Your task to perform on an android device: turn on showing notifications on the lock screen Image 0: 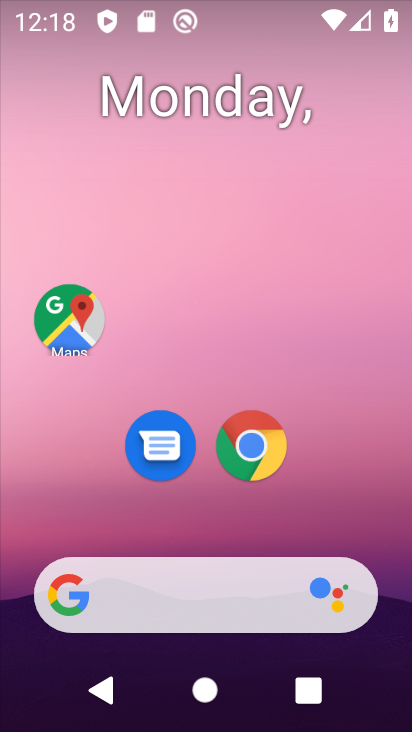
Step 0: drag from (299, 530) to (170, 5)
Your task to perform on an android device: turn on showing notifications on the lock screen Image 1: 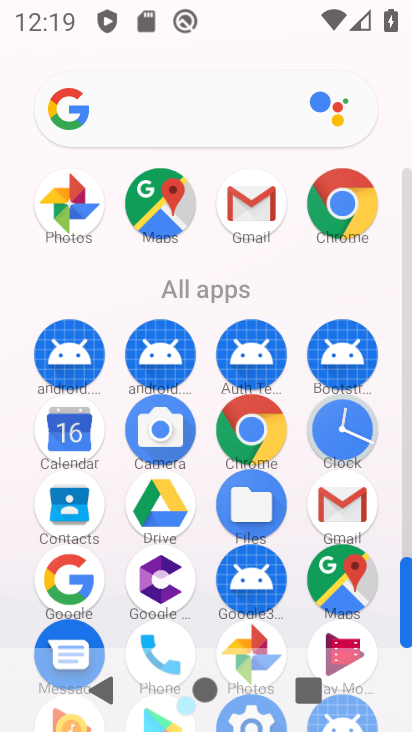
Step 1: drag from (323, 514) to (268, 195)
Your task to perform on an android device: turn on showing notifications on the lock screen Image 2: 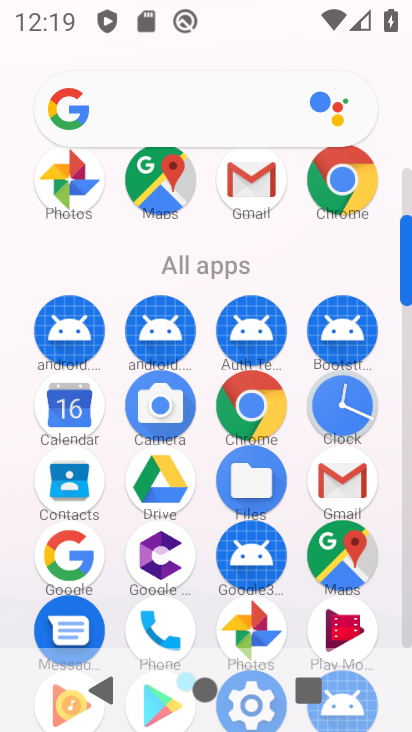
Step 2: drag from (288, 482) to (252, 247)
Your task to perform on an android device: turn on showing notifications on the lock screen Image 3: 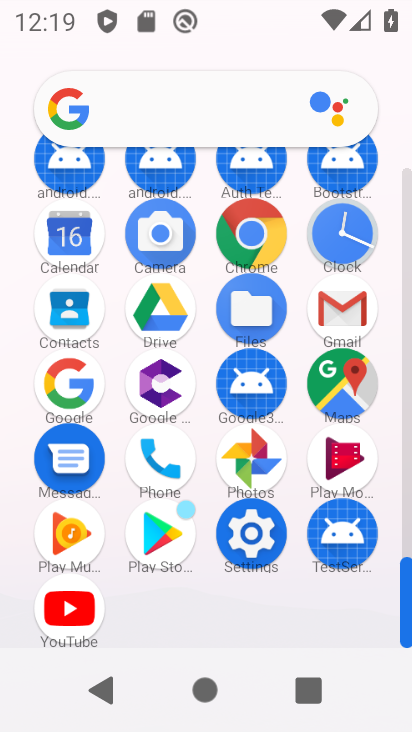
Step 3: click (245, 520)
Your task to perform on an android device: turn on showing notifications on the lock screen Image 4: 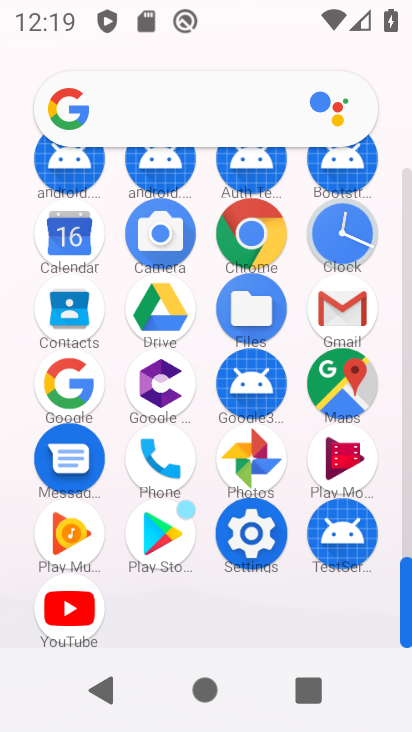
Step 4: click (248, 519)
Your task to perform on an android device: turn on showing notifications on the lock screen Image 5: 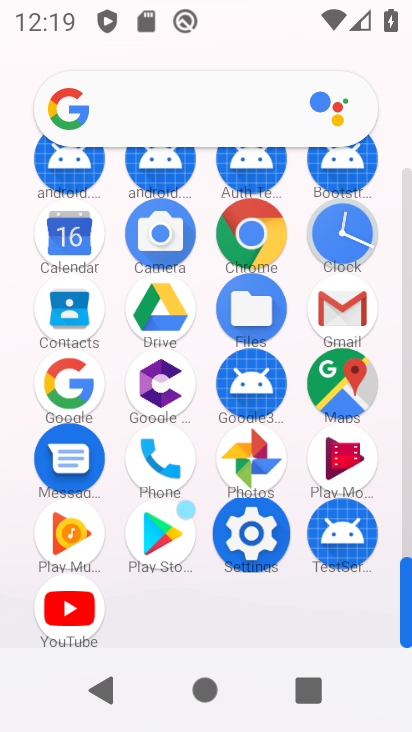
Step 5: click (248, 519)
Your task to perform on an android device: turn on showing notifications on the lock screen Image 6: 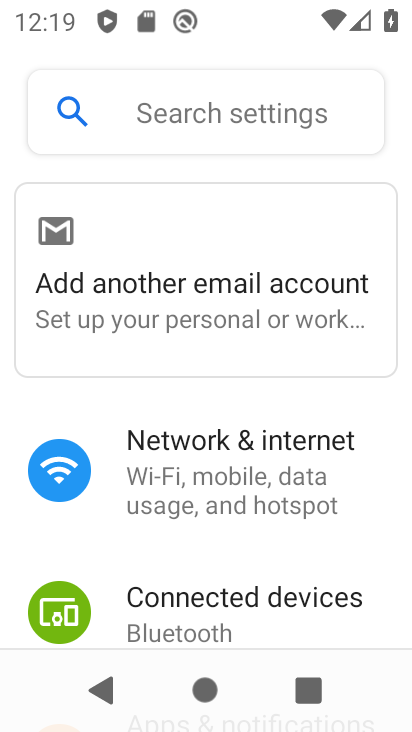
Step 6: drag from (169, 507) to (147, 239)
Your task to perform on an android device: turn on showing notifications on the lock screen Image 7: 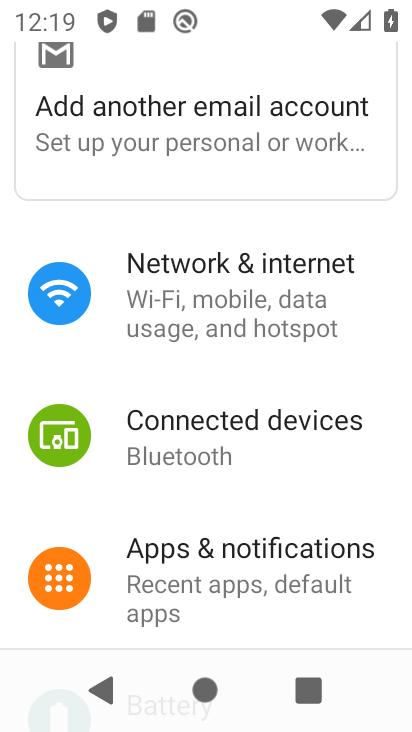
Step 7: drag from (198, 549) to (155, 291)
Your task to perform on an android device: turn on showing notifications on the lock screen Image 8: 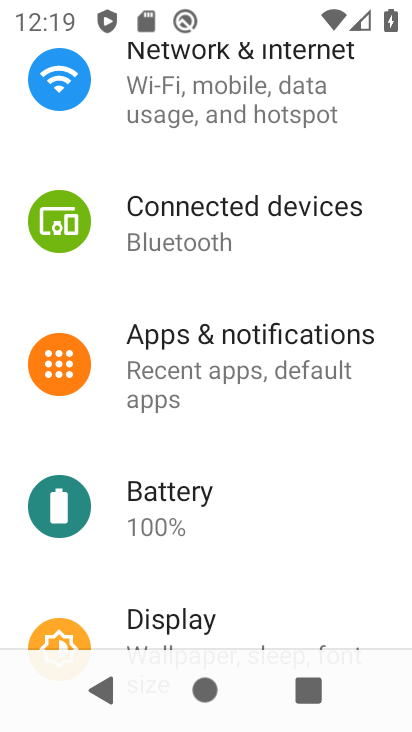
Step 8: drag from (209, 480) to (186, 204)
Your task to perform on an android device: turn on showing notifications on the lock screen Image 9: 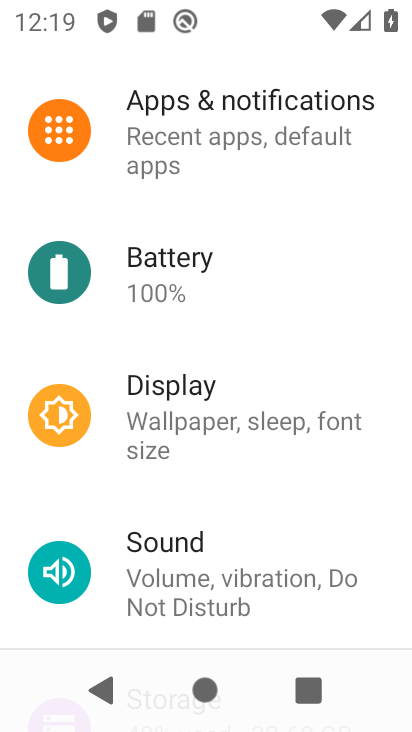
Step 9: drag from (259, 460) to (281, 169)
Your task to perform on an android device: turn on showing notifications on the lock screen Image 10: 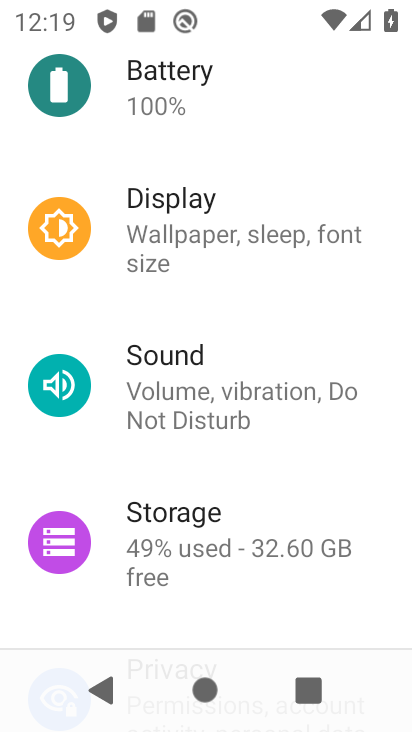
Step 10: drag from (291, 470) to (356, 242)
Your task to perform on an android device: turn on showing notifications on the lock screen Image 11: 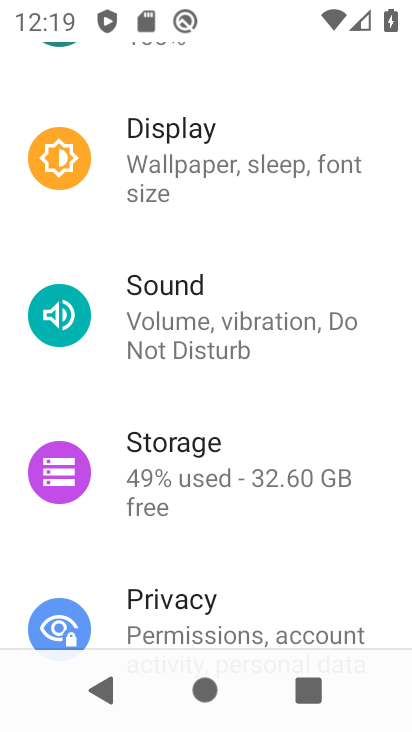
Step 11: drag from (313, 532) to (299, 210)
Your task to perform on an android device: turn on showing notifications on the lock screen Image 12: 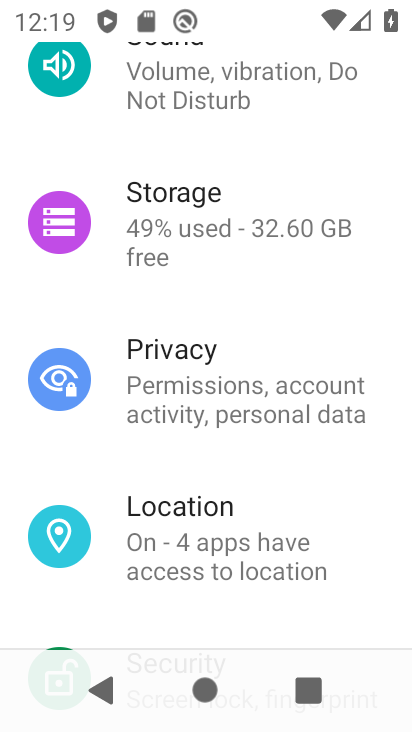
Step 12: drag from (249, 354) to (321, 166)
Your task to perform on an android device: turn on showing notifications on the lock screen Image 13: 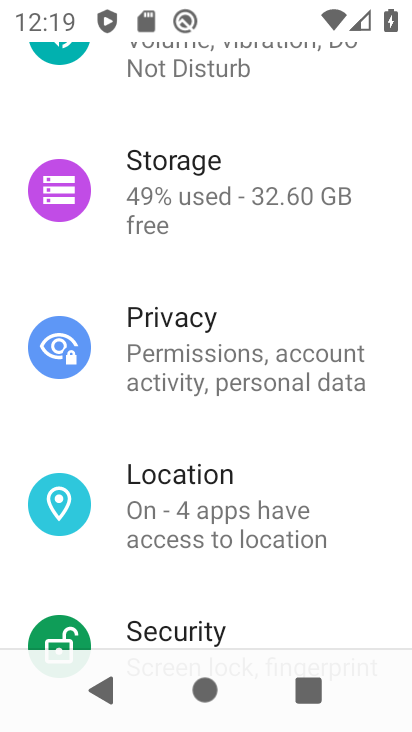
Step 13: click (340, 429)
Your task to perform on an android device: turn on showing notifications on the lock screen Image 14: 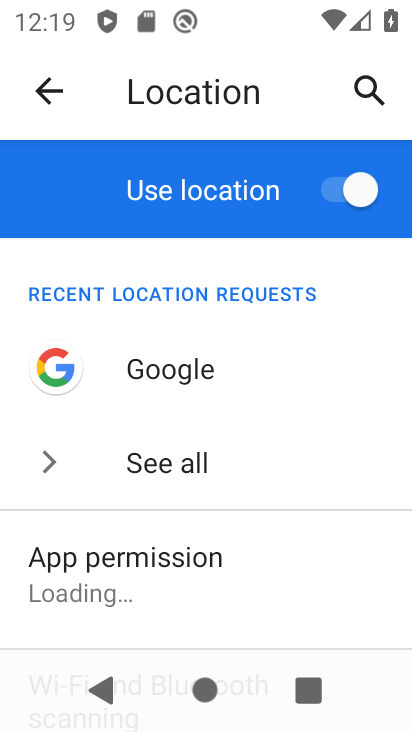
Step 14: click (34, 95)
Your task to perform on an android device: turn on showing notifications on the lock screen Image 15: 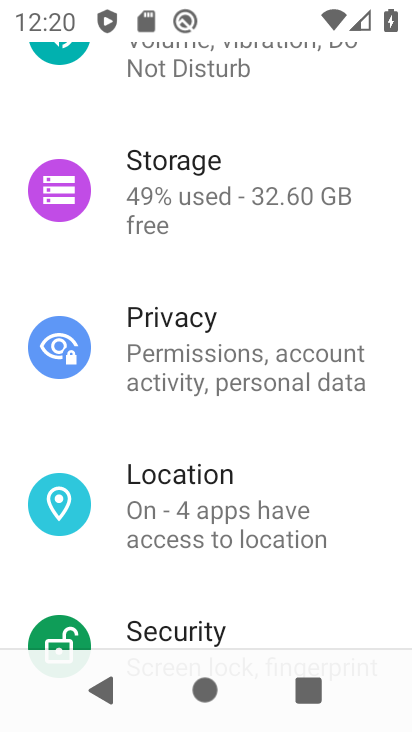
Step 15: drag from (212, 433) to (187, 170)
Your task to perform on an android device: turn on showing notifications on the lock screen Image 16: 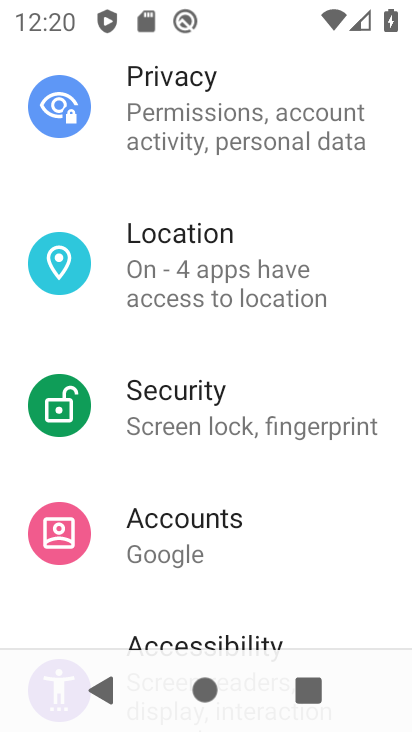
Step 16: drag from (232, 480) to (251, 229)
Your task to perform on an android device: turn on showing notifications on the lock screen Image 17: 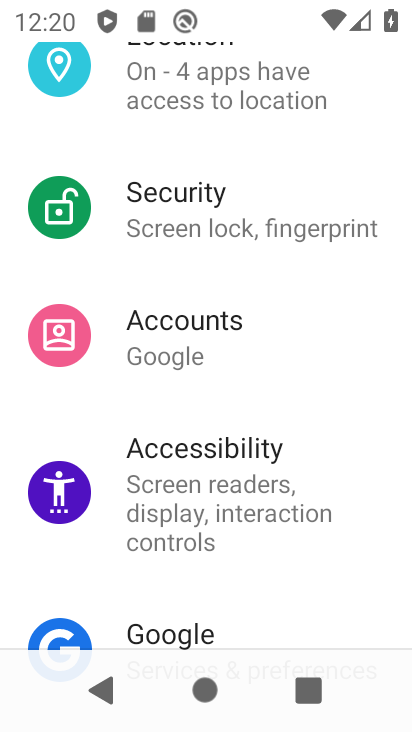
Step 17: drag from (186, 499) to (207, 133)
Your task to perform on an android device: turn on showing notifications on the lock screen Image 18: 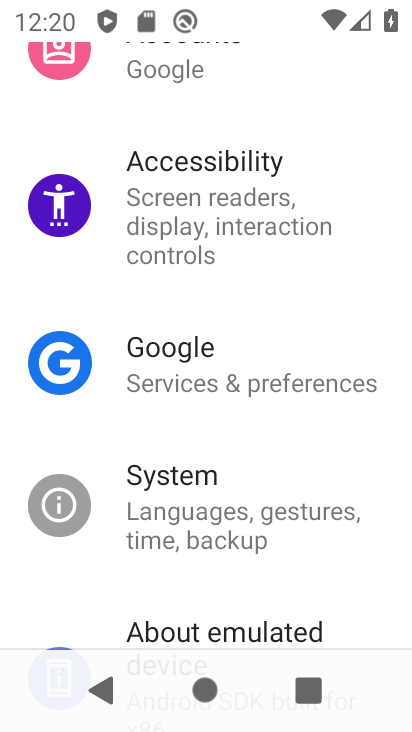
Step 18: drag from (220, 392) to (231, 96)
Your task to perform on an android device: turn on showing notifications on the lock screen Image 19: 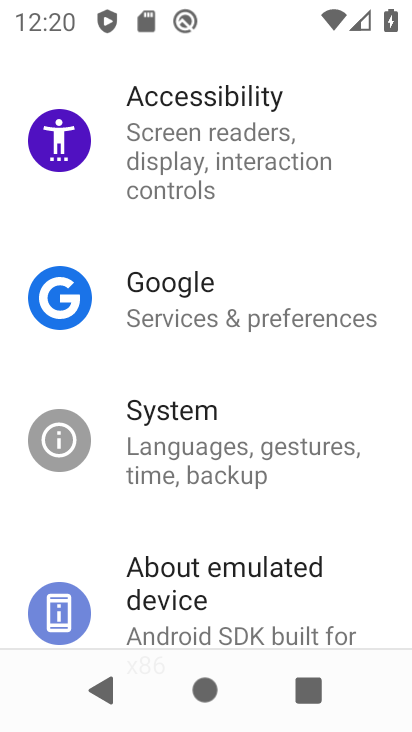
Step 19: drag from (234, 421) to (217, 72)
Your task to perform on an android device: turn on showing notifications on the lock screen Image 20: 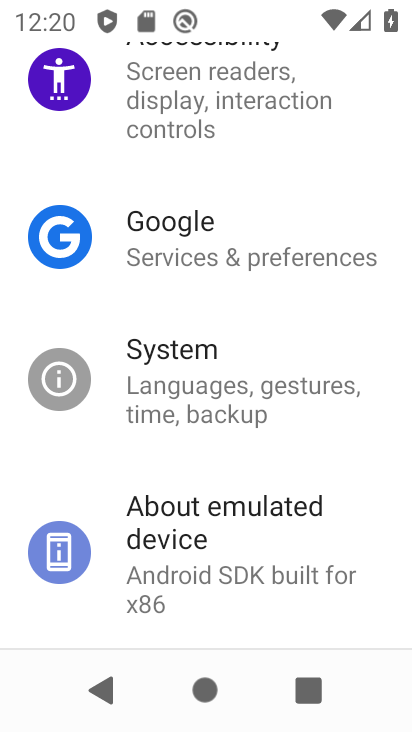
Step 20: drag from (166, 236) to (185, 703)
Your task to perform on an android device: turn on showing notifications on the lock screen Image 21: 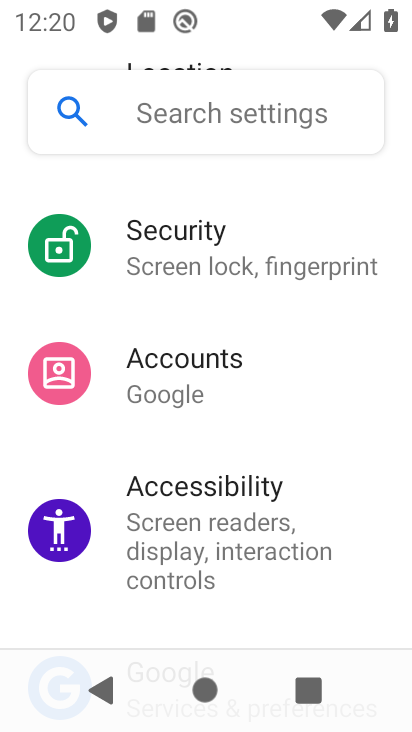
Step 21: drag from (160, 245) to (190, 403)
Your task to perform on an android device: turn on showing notifications on the lock screen Image 22: 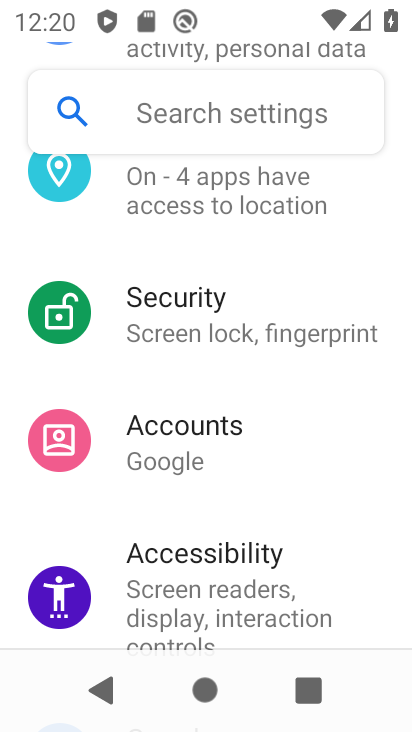
Step 22: drag from (212, 240) to (242, 580)
Your task to perform on an android device: turn on showing notifications on the lock screen Image 23: 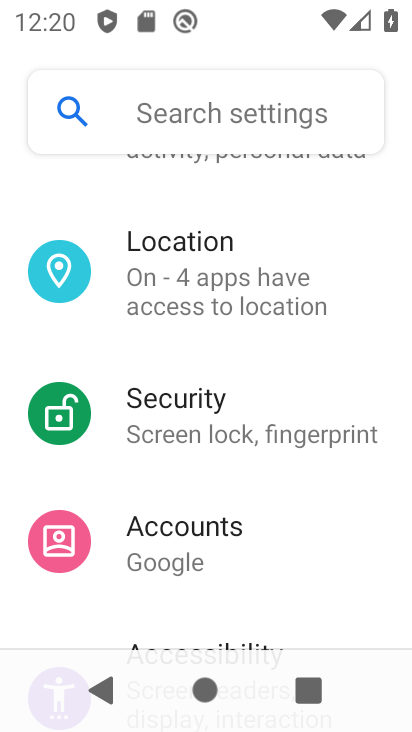
Step 23: drag from (218, 233) to (199, 728)
Your task to perform on an android device: turn on showing notifications on the lock screen Image 24: 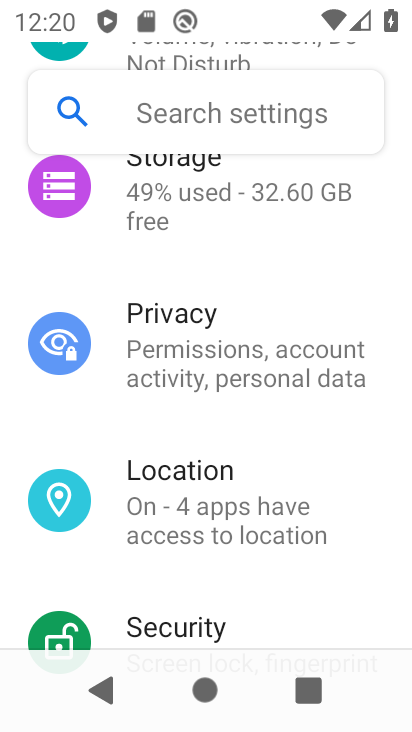
Step 24: drag from (173, 311) to (208, 501)
Your task to perform on an android device: turn on showing notifications on the lock screen Image 25: 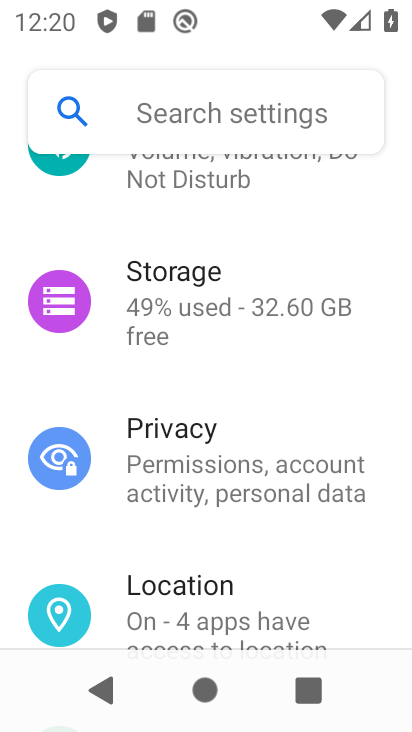
Step 25: drag from (191, 233) to (224, 608)
Your task to perform on an android device: turn on showing notifications on the lock screen Image 26: 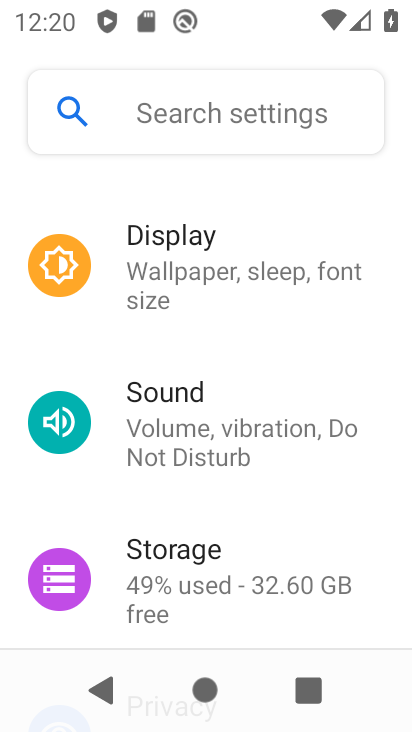
Step 26: drag from (186, 253) to (211, 495)
Your task to perform on an android device: turn on showing notifications on the lock screen Image 27: 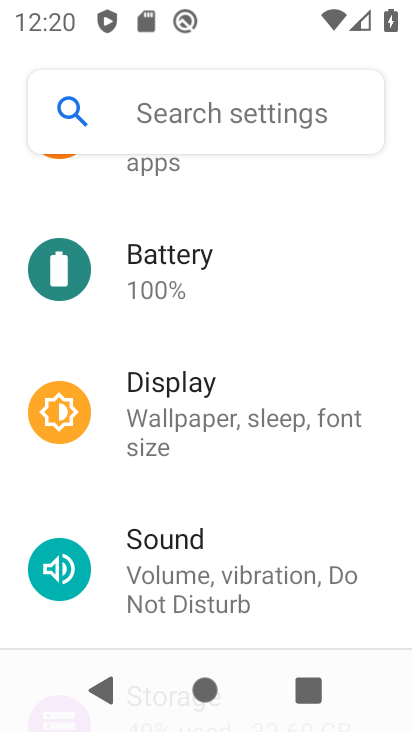
Step 27: drag from (239, 455) to (251, 657)
Your task to perform on an android device: turn on showing notifications on the lock screen Image 28: 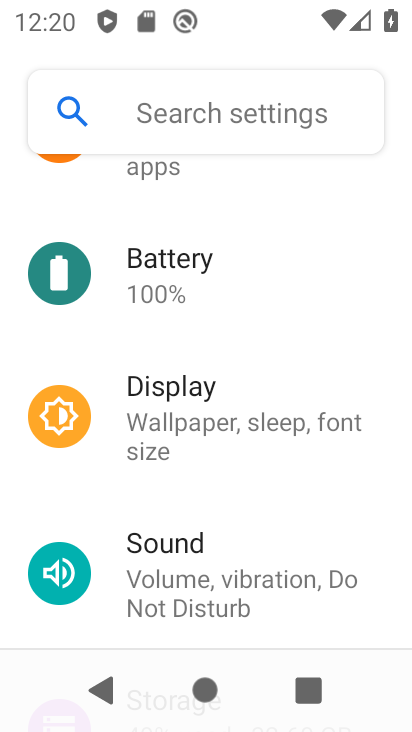
Step 28: drag from (188, 245) to (250, 506)
Your task to perform on an android device: turn on showing notifications on the lock screen Image 29: 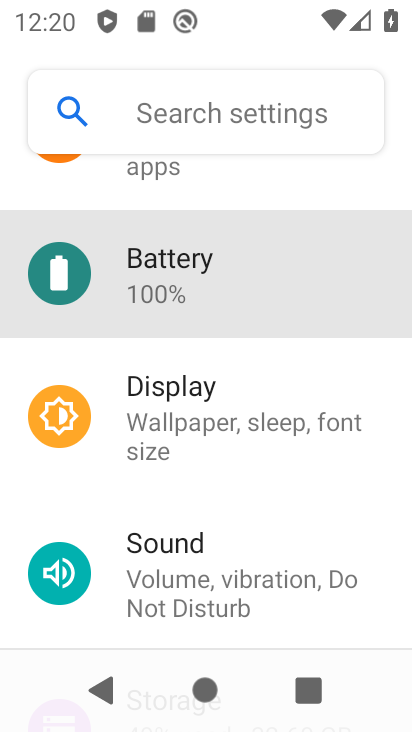
Step 29: drag from (173, 301) to (261, 631)
Your task to perform on an android device: turn on showing notifications on the lock screen Image 30: 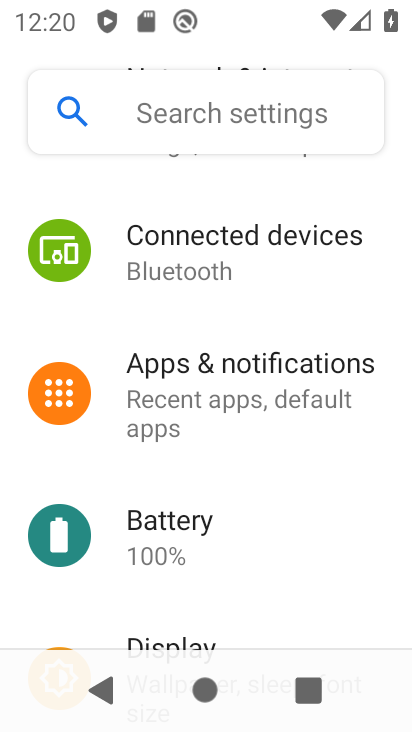
Step 30: drag from (227, 338) to (296, 703)
Your task to perform on an android device: turn on showing notifications on the lock screen Image 31: 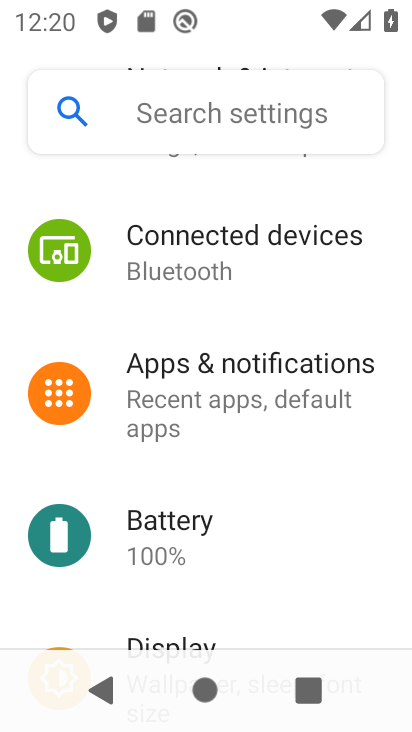
Step 31: click (195, 389)
Your task to perform on an android device: turn on showing notifications on the lock screen Image 32: 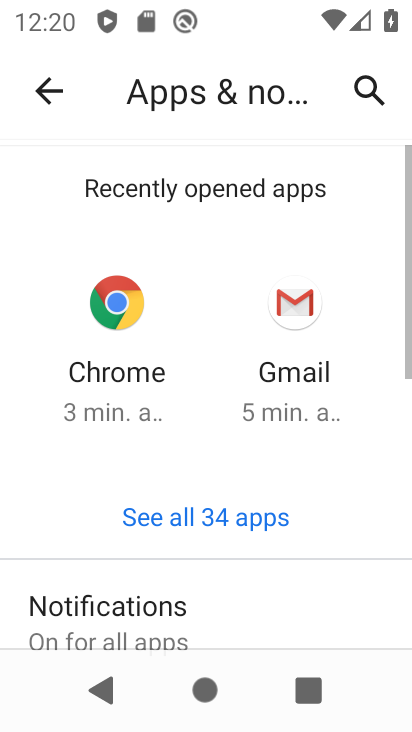
Step 32: drag from (159, 561) to (195, 86)
Your task to perform on an android device: turn on showing notifications on the lock screen Image 33: 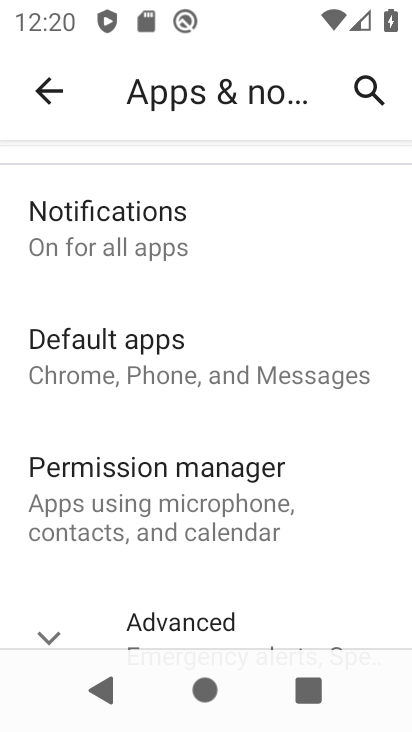
Step 33: click (88, 231)
Your task to perform on an android device: turn on showing notifications on the lock screen Image 34: 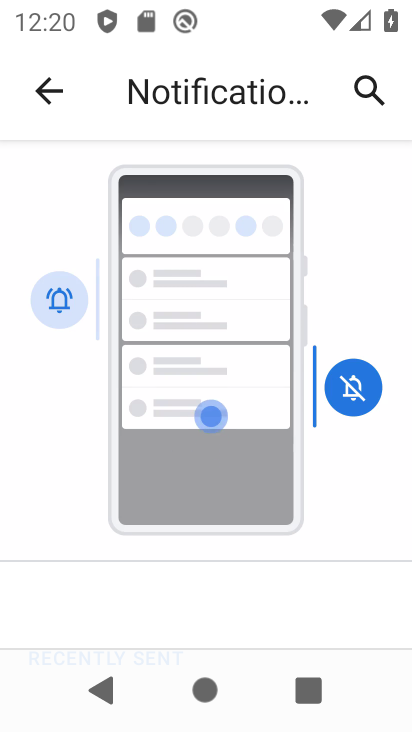
Step 34: drag from (197, 270) to (208, 103)
Your task to perform on an android device: turn on showing notifications on the lock screen Image 35: 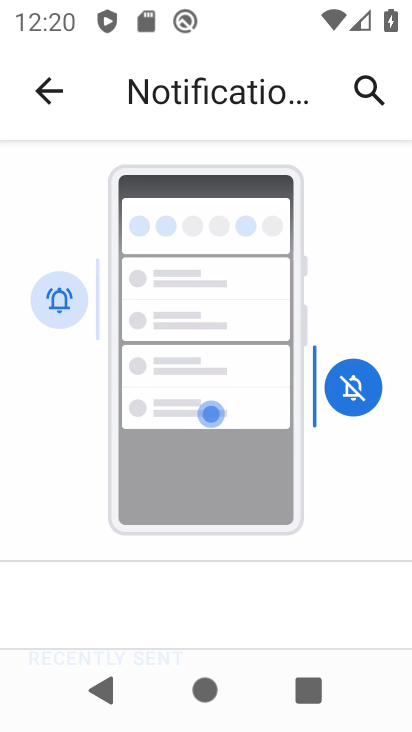
Step 35: drag from (145, 482) to (180, 178)
Your task to perform on an android device: turn on showing notifications on the lock screen Image 36: 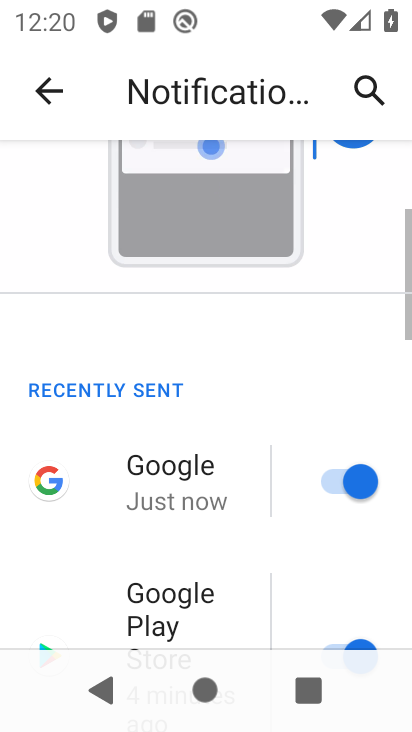
Step 36: drag from (153, 451) to (159, 21)
Your task to perform on an android device: turn on showing notifications on the lock screen Image 37: 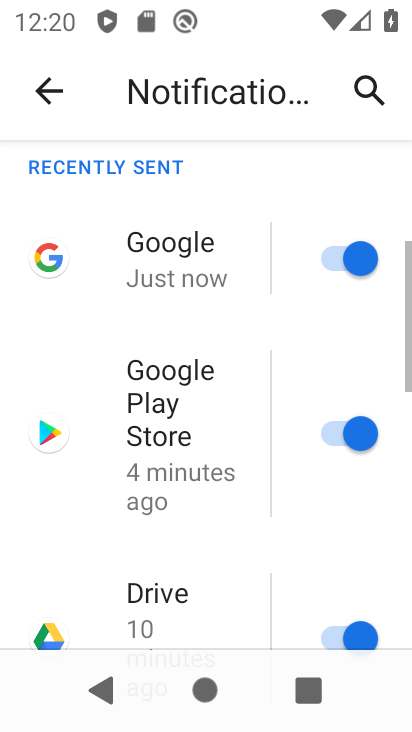
Step 37: drag from (212, 454) to (249, 58)
Your task to perform on an android device: turn on showing notifications on the lock screen Image 38: 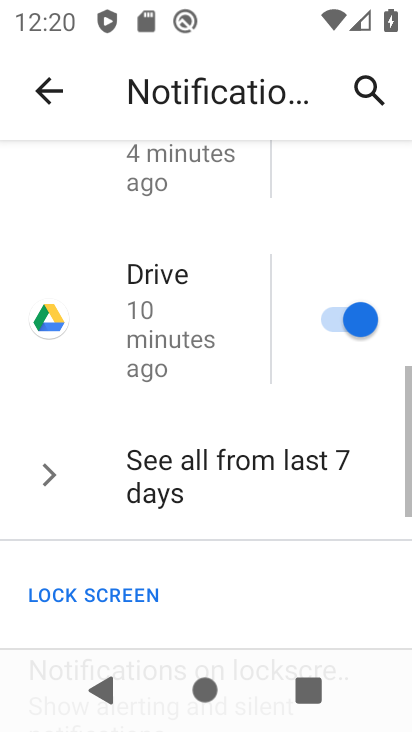
Step 38: drag from (228, 418) to (237, 107)
Your task to perform on an android device: turn on showing notifications on the lock screen Image 39: 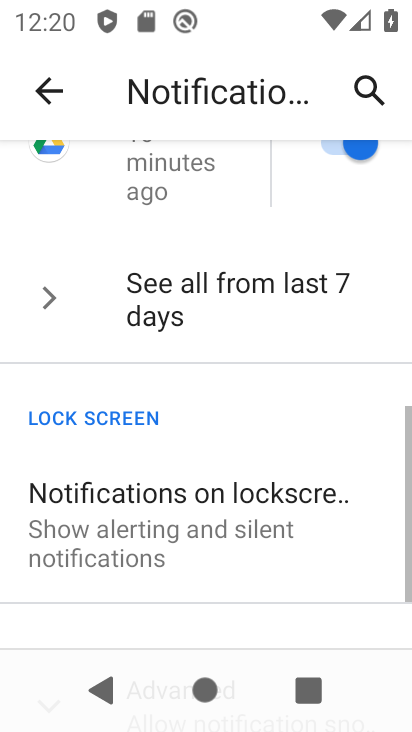
Step 39: drag from (189, 420) to (215, 147)
Your task to perform on an android device: turn on showing notifications on the lock screen Image 40: 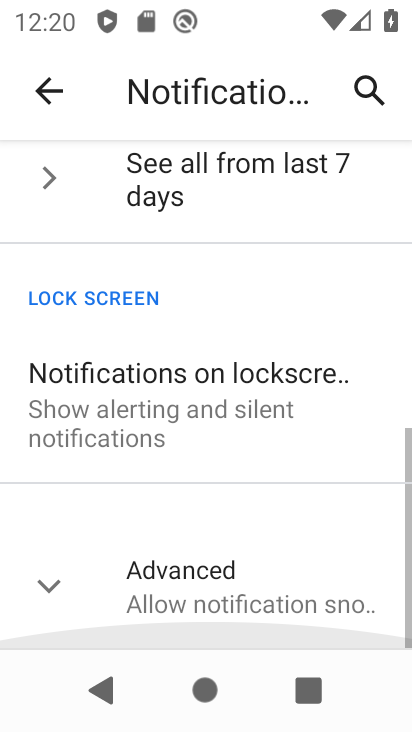
Step 40: click (174, 244)
Your task to perform on an android device: turn on showing notifications on the lock screen Image 41: 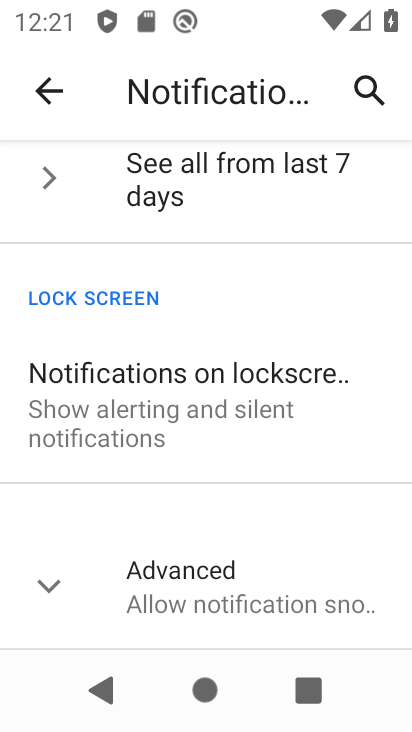
Step 41: click (161, 380)
Your task to perform on an android device: turn on showing notifications on the lock screen Image 42: 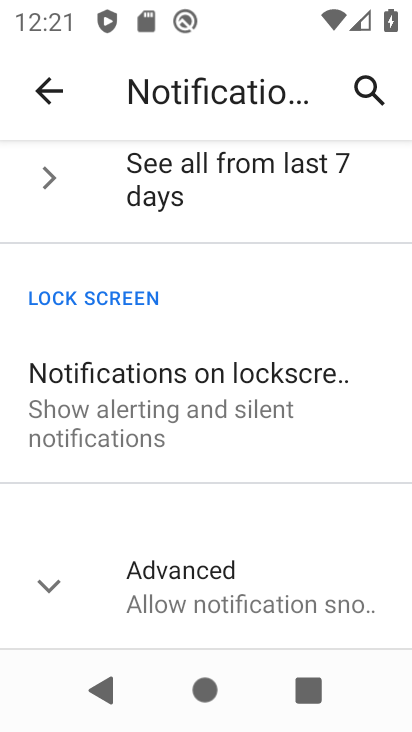
Step 42: click (162, 379)
Your task to perform on an android device: turn on showing notifications on the lock screen Image 43: 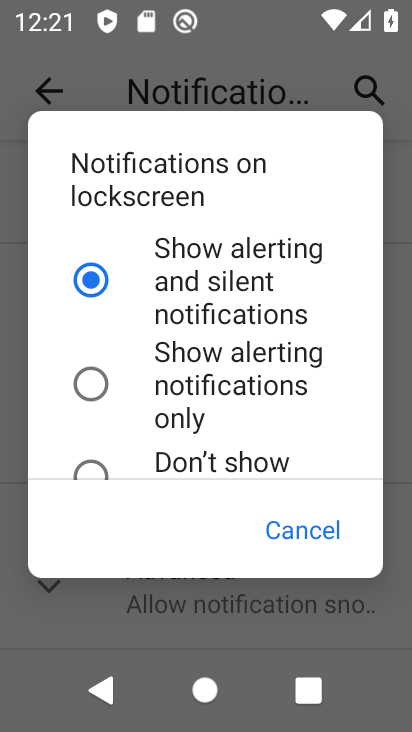
Step 43: task complete